Your task to perform on an android device: toggle data saver in the chrome app Image 0: 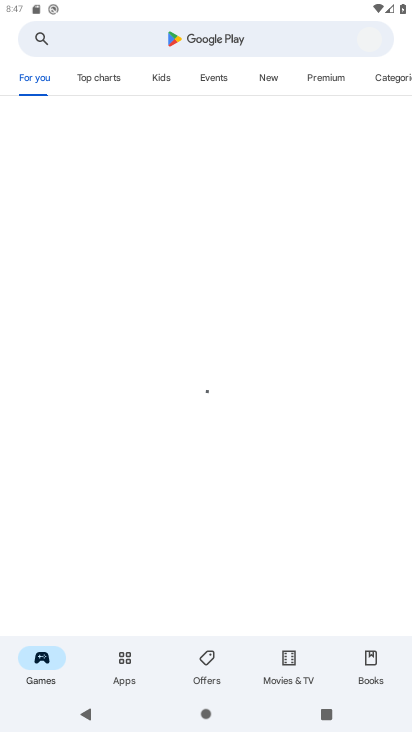
Step 0: press home button
Your task to perform on an android device: toggle data saver in the chrome app Image 1: 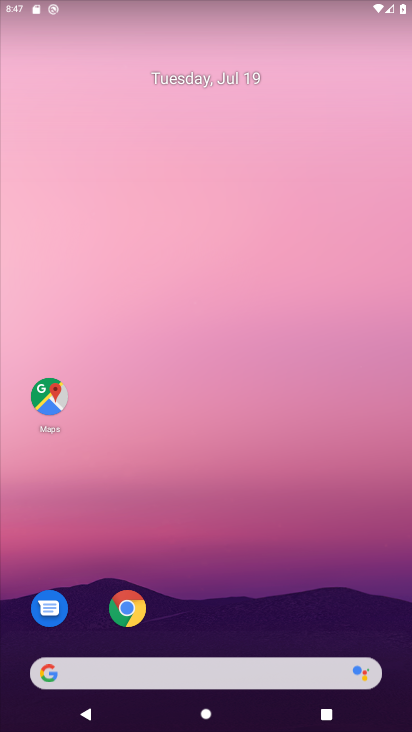
Step 1: click (133, 623)
Your task to perform on an android device: toggle data saver in the chrome app Image 2: 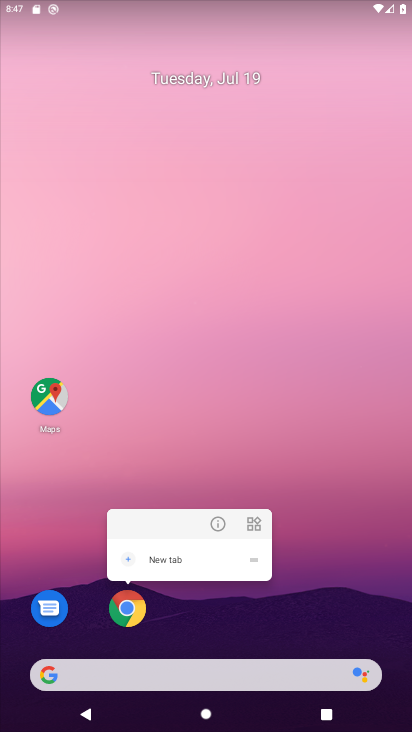
Step 2: click (133, 623)
Your task to perform on an android device: toggle data saver in the chrome app Image 3: 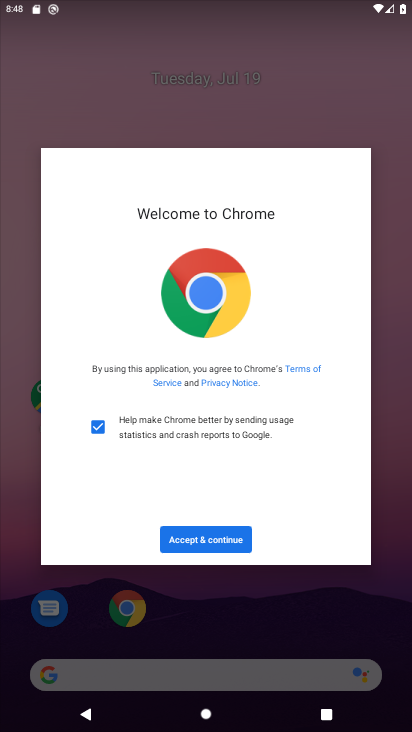
Step 3: click (230, 548)
Your task to perform on an android device: toggle data saver in the chrome app Image 4: 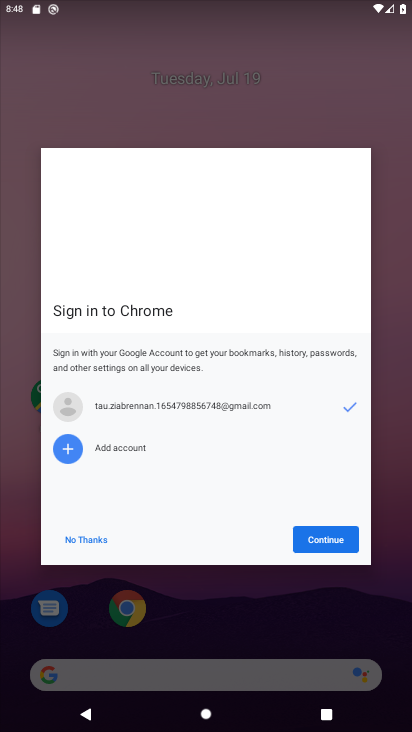
Step 4: click (325, 529)
Your task to perform on an android device: toggle data saver in the chrome app Image 5: 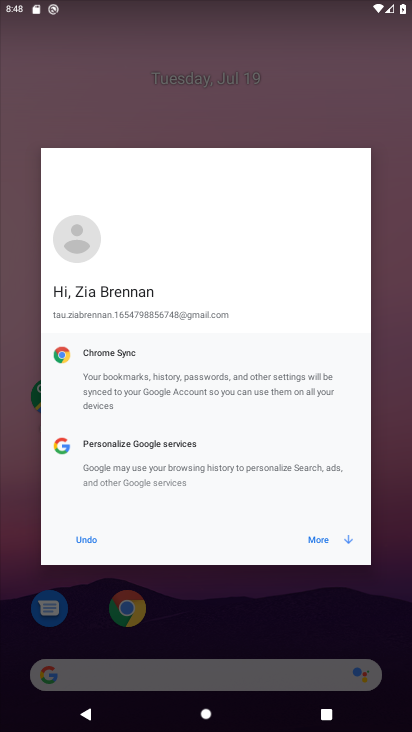
Step 5: click (323, 545)
Your task to perform on an android device: toggle data saver in the chrome app Image 6: 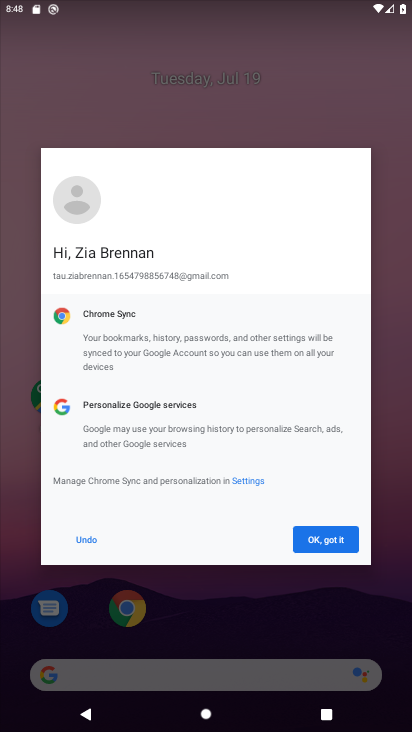
Step 6: click (323, 545)
Your task to perform on an android device: toggle data saver in the chrome app Image 7: 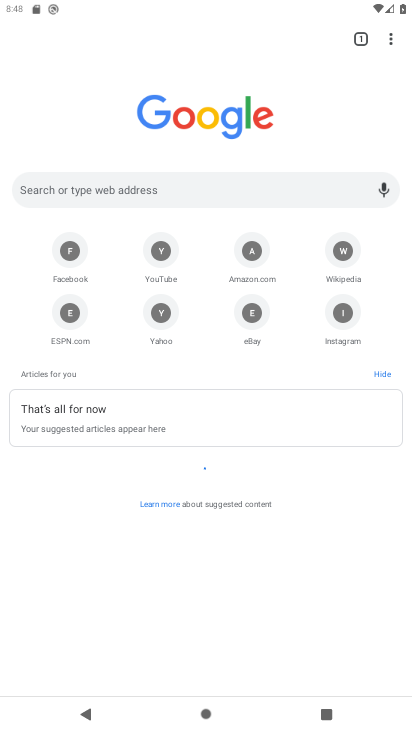
Step 7: click (384, 43)
Your task to perform on an android device: toggle data saver in the chrome app Image 8: 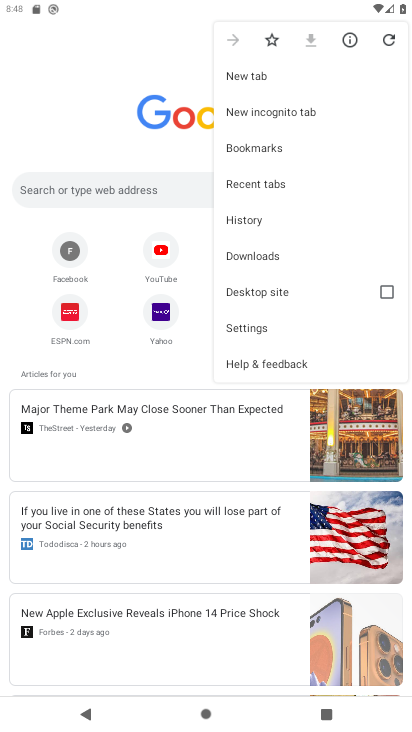
Step 8: click (309, 333)
Your task to perform on an android device: toggle data saver in the chrome app Image 9: 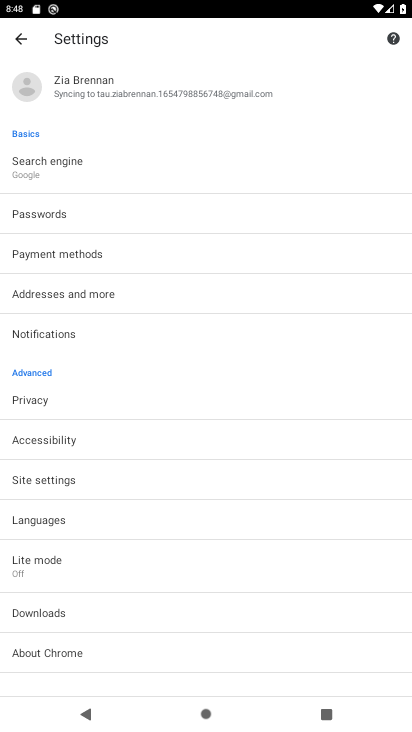
Step 9: click (100, 562)
Your task to perform on an android device: toggle data saver in the chrome app Image 10: 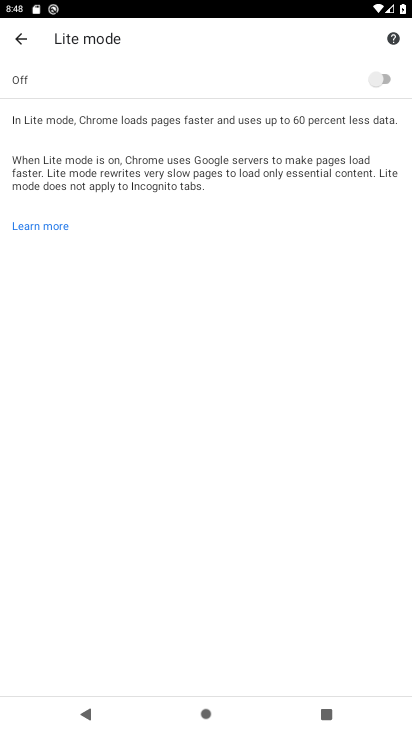
Step 10: click (378, 85)
Your task to perform on an android device: toggle data saver in the chrome app Image 11: 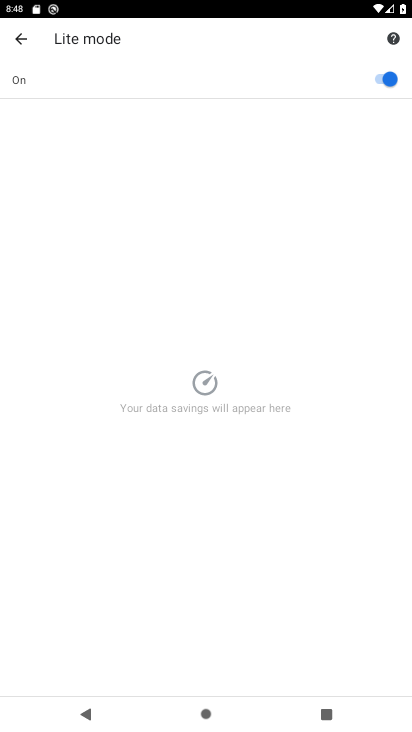
Step 11: task complete